Your task to perform on an android device: turn on airplane mode Image 0: 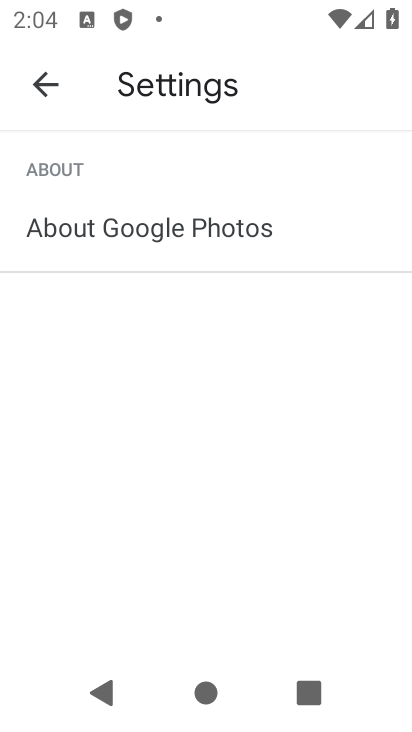
Step 0: press home button
Your task to perform on an android device: turn on airplane mode Image 1: 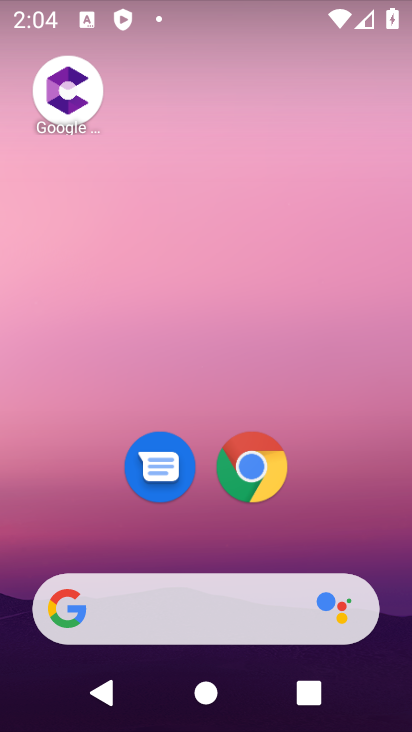
Step 1: drag from (197, 565) to (131, 251)
Your task to perform on an android device: turn on airplane mode Image 2: 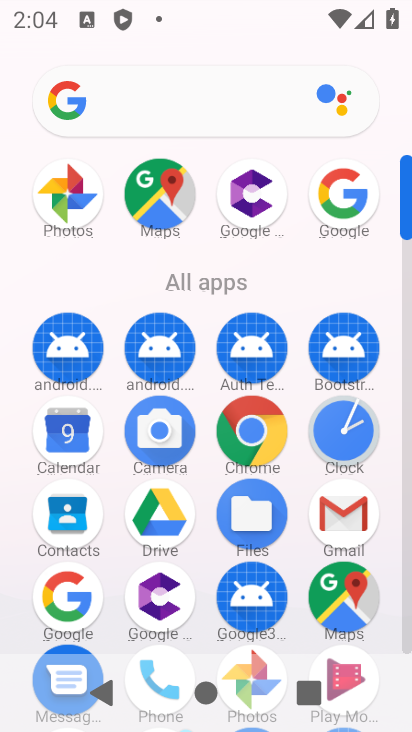
Step 2: drag from (302, 467) to (295, 334)
Your task to perform on an android device: turn on airplane mode Image 3: 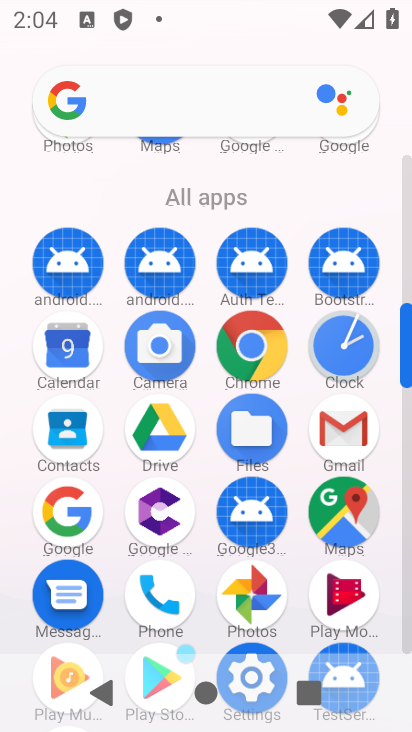
Step 3: drag from (202, 500) to (234, 263)
Your task to perform on an android device: turn on airplane mode Image 4: 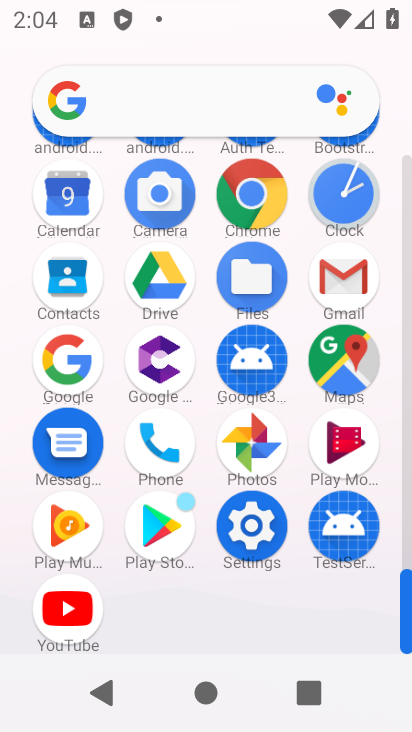
Step 4: click (254, 518)
Your task to perform on an android device: turn on airplane mode Image 5: 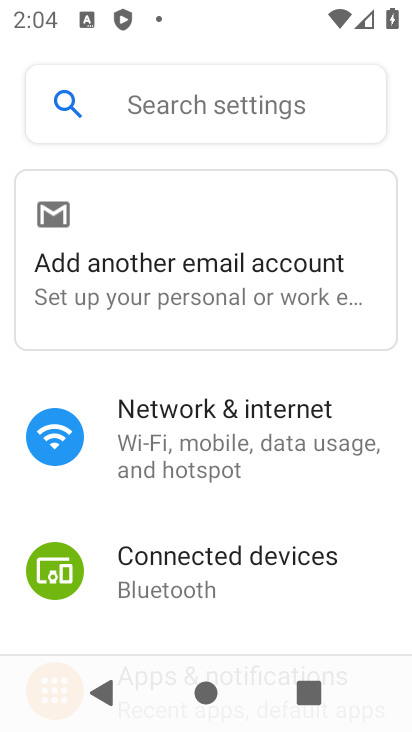
Step 5: click (216, 417)
Your task to perform on an android device: turn on airplane mode Image 6: 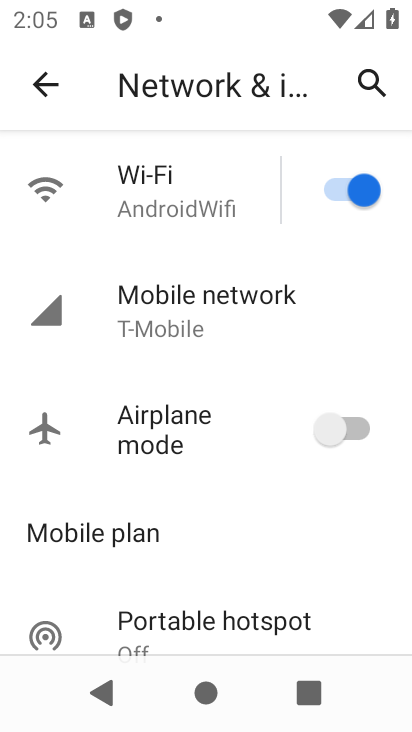
Step 6: click (343, 431)
Your task to perform on an android device: turn on airplane mode Image 7: 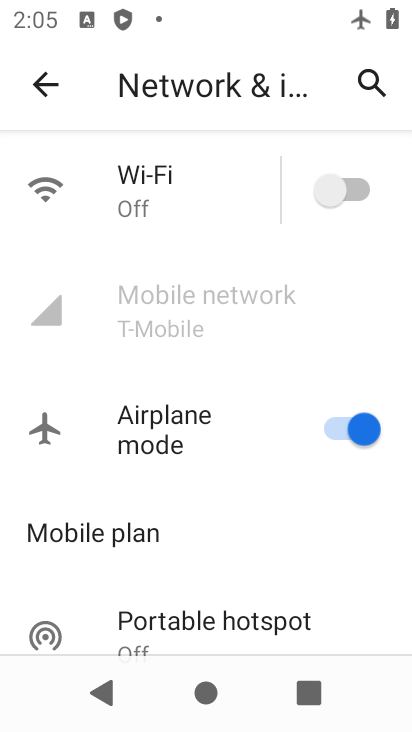
Step 7: task complete